Your task to perform on an android device: Open Google Chrome and click the shortcut for Amazon.com Image 0: 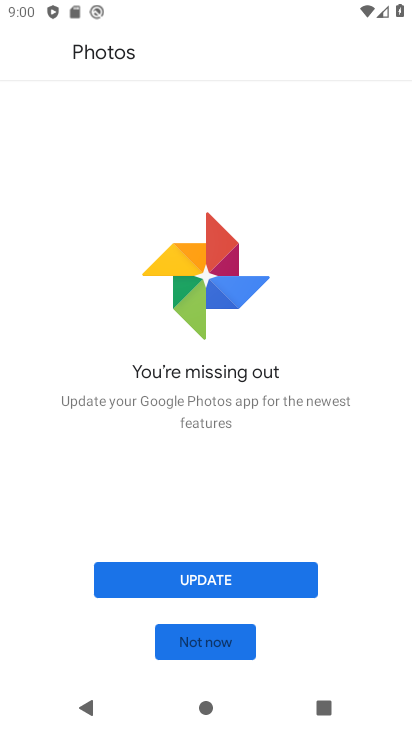
Step 0: press home button
Your task to perform on an android device: Open Google Chrome and click the shortcut for Amazon.com Image 1: 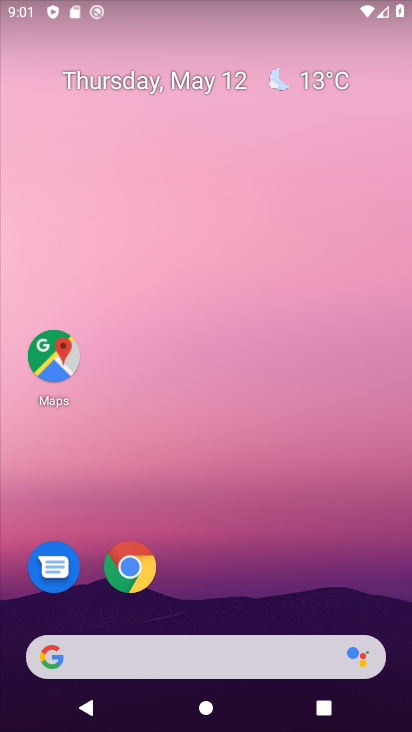
Step 1: click (127, 565)
Your task to perform on an android device: Open Google Chrome and click the shortcut for Amazon.com Image 2: 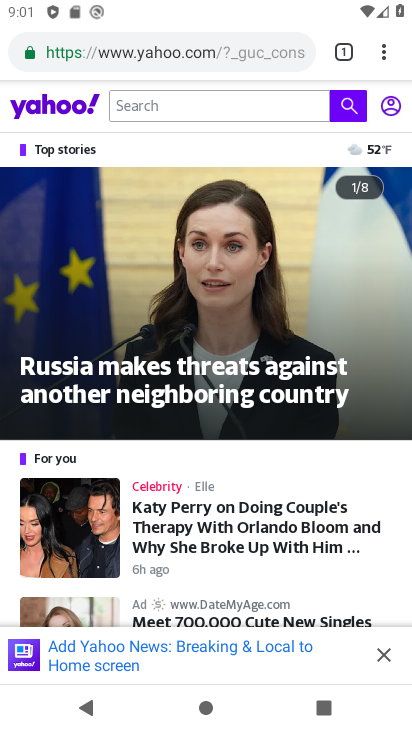
Step 2: click (340, 41)
Your task to perform on an android device: Open Google Chrome and click the shortcut for Amazon.com Image 3: 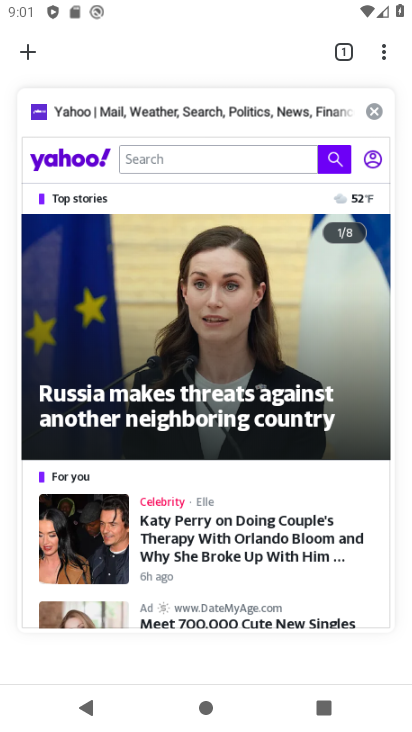
Step 3: click (377, 104)
Your task to perform on an android device: Open Google Chrome and click the shortcut for Amazon.com Image 4: 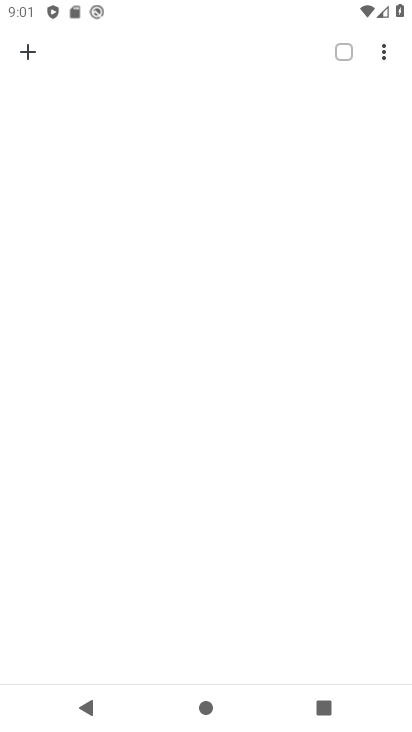
Step 4: click (37, 51)
Your task to perform on an android device: Open Google Chrome and click the shortcut for Amazon.com Image 5: 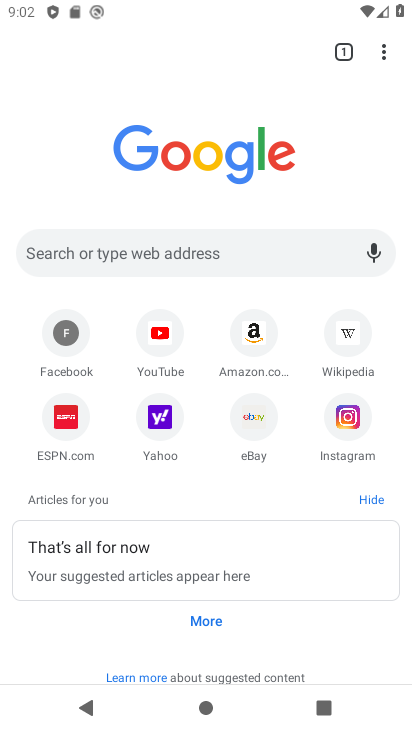
Step 5: click (245, 336)
Your task to perform on an android device: Open Google Chrome and click the shortcut for Amazon.com Image 6: 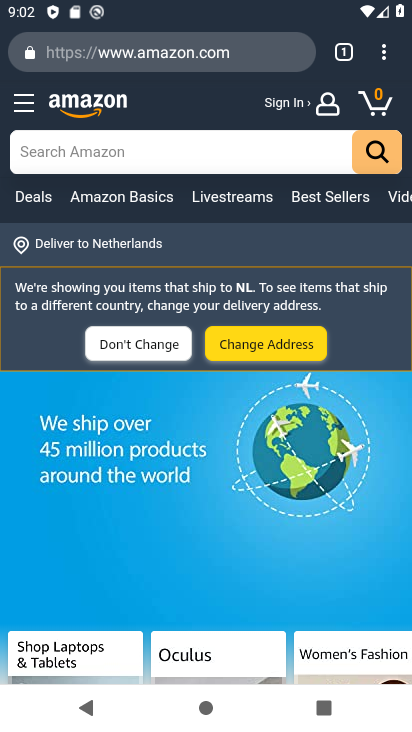
Step 6: task complete